Your task to perform on an android device: Play the last video I watched on Youtube Image 0: 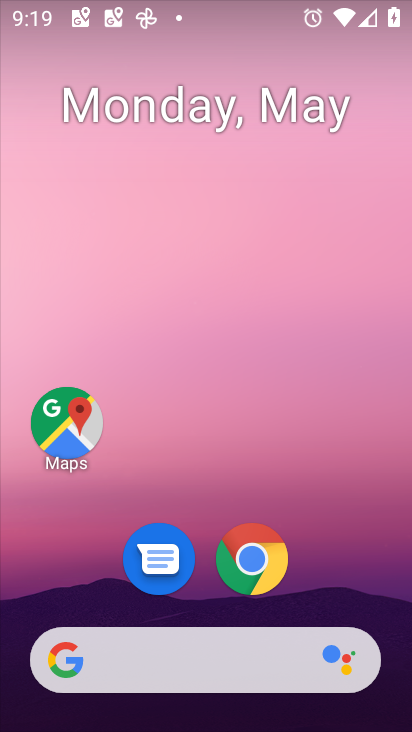
Step 0: drag from (378, 679) to (252, 53)
Your task to perform on an android device: Play the last video I watched on Youtube Image 1: 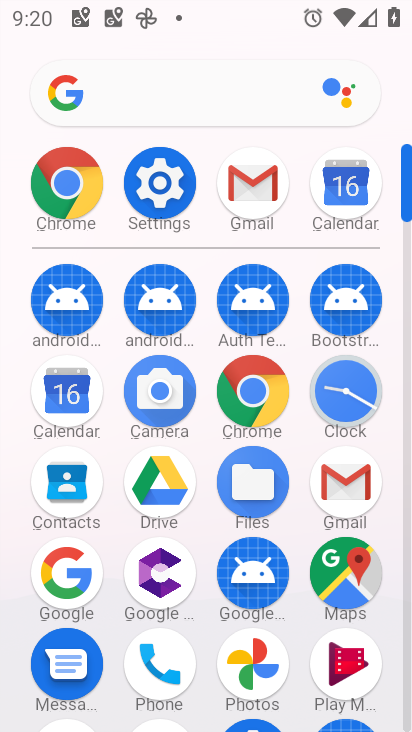
Step 1: drag from (284, 664) to (298, 165)
Your task to perform on an android device: Play the last video I watched on Youtube Image 2: 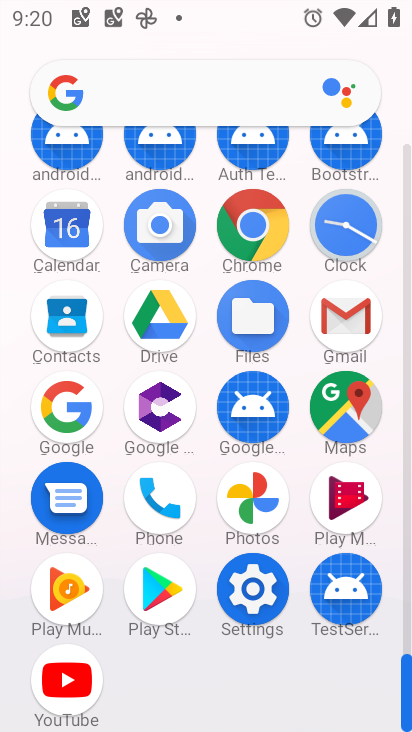
Step 2: click (62, 670)
Your task to perform on an android device: Play the last video I watched on Youtube Image 3: 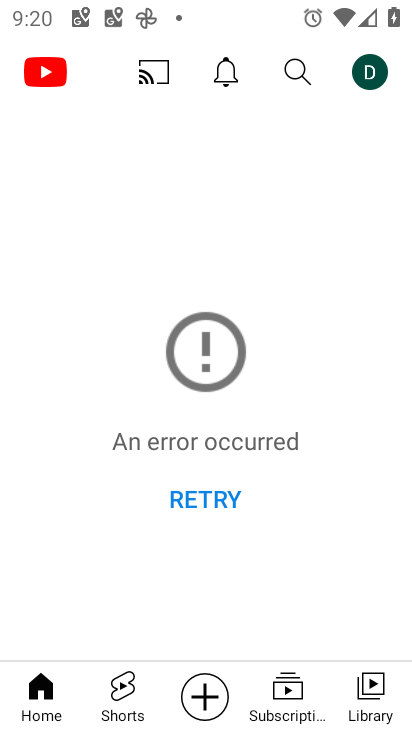
Step 3: click (205, 507)
Your task to perform on an android device: Play the last video I watched on Youtube Image 4: 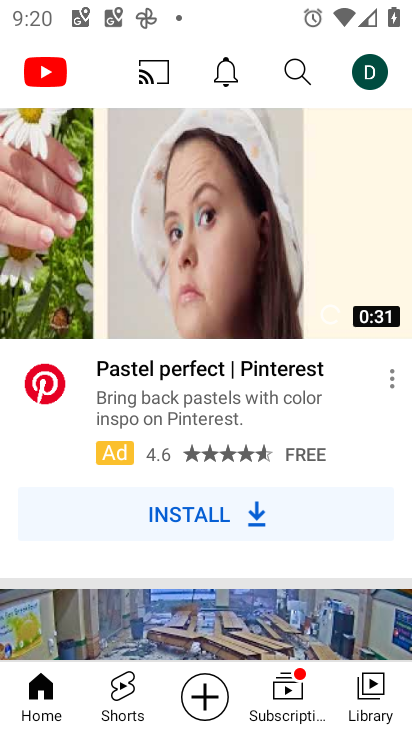
Step 4: click (371, 687)
Your task to perform on an android device: Play the last video I watched on Youtube Image 5: 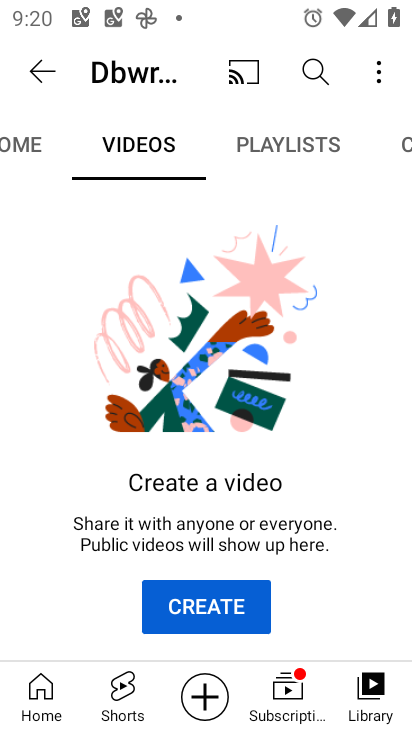
Step 5: click (21, 151)
Your task to perform on an android device: Play the last video I watched on Youtube Image 6: 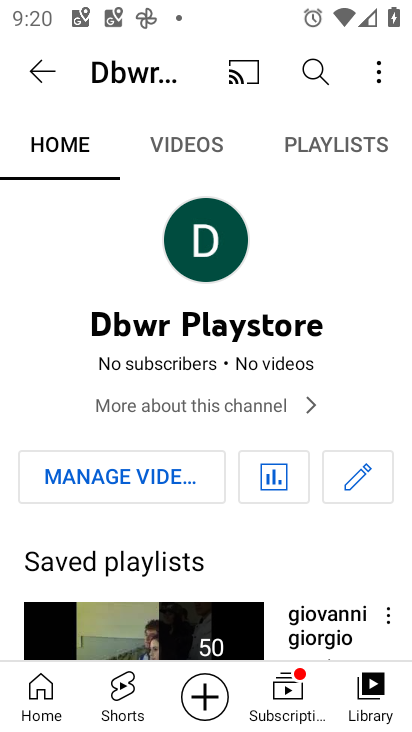
Step 6: drag from (87, 574) to (122, 213)
Your task to perform on an android device: Play the last video I watched on Youtube Image 7: 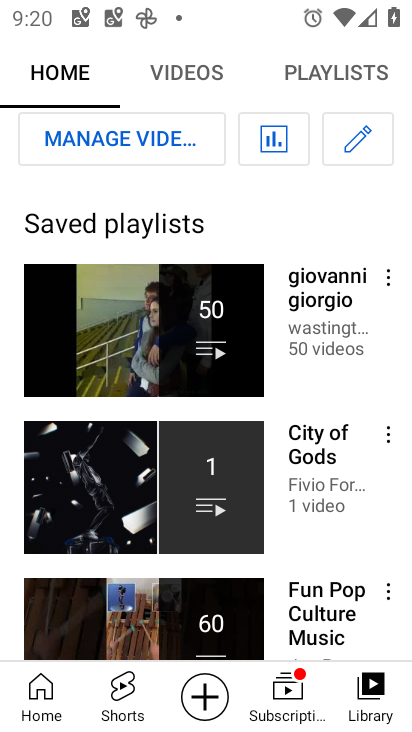
Step 7: click (117, 319)
Your task to perform on an android device: Play the last video I watched on Youtube Image 8: 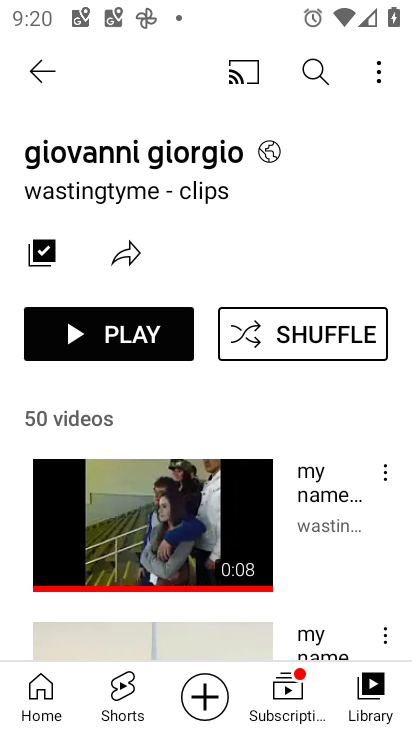
Step 8: task complete